Your task to perform on an android device: turn off picture-in-picture Image 0: 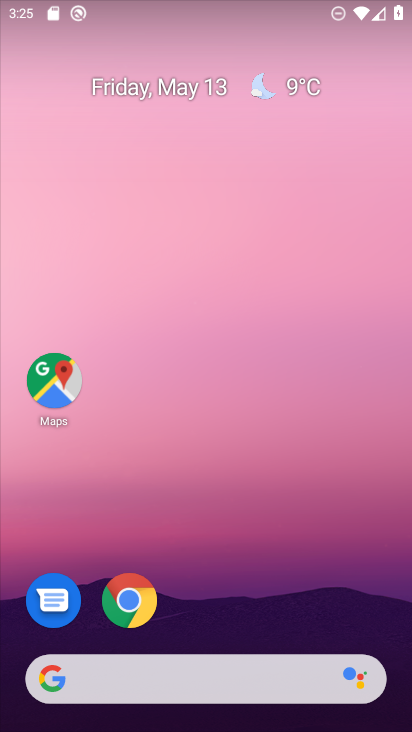
Step 0: click (223, 50)
Your task to perform on an android device: turn off picture-in-picture Image 1: 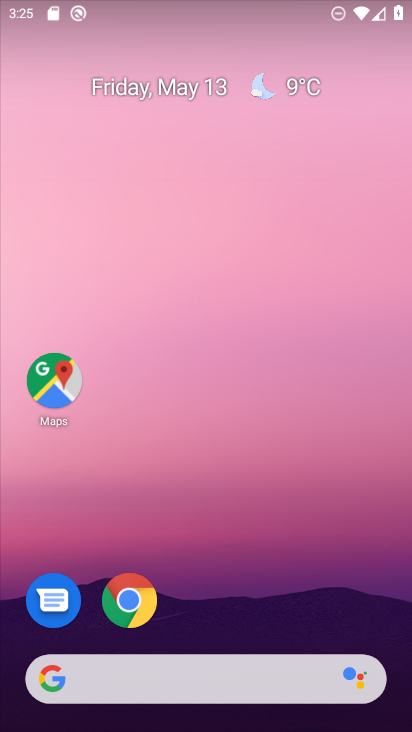
Step 1: drag from (196, 616) to (199, 118)
Your task to perform on an android device: turn off picture-in-picture Image 2: 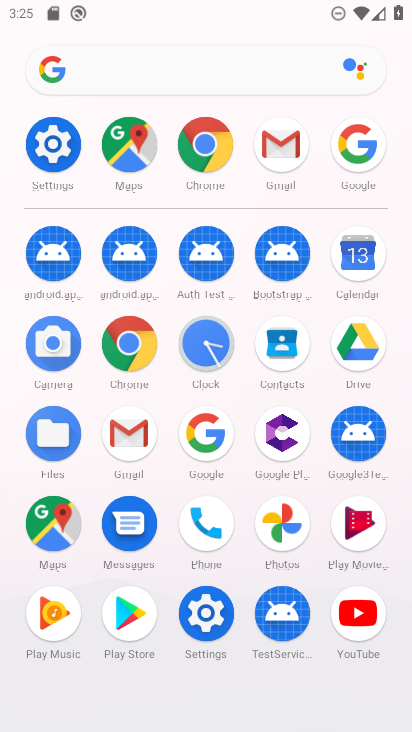
Step 2: click (191, 602)
Your task to perform on an android device: turn off picture-in-picture Image 3: 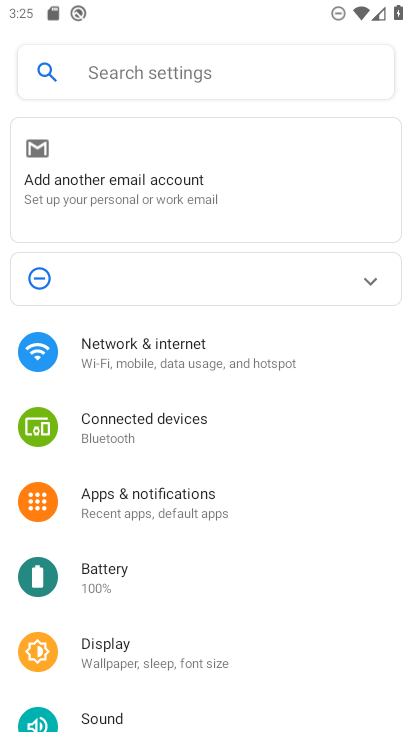
Step 3: drag from (224, 616) to (252, 103)
Your task to perform on an android device: turn off picture-in-picture Image 4: 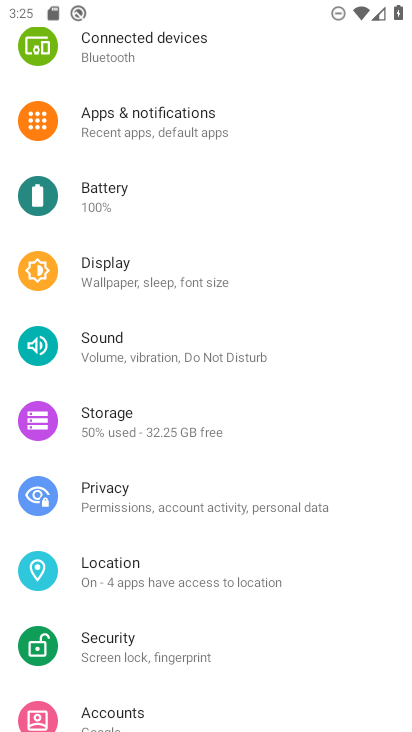
Step 4: click (209, 128)
Your task to perform on an android device: turn off picture-in-picture Image 5: 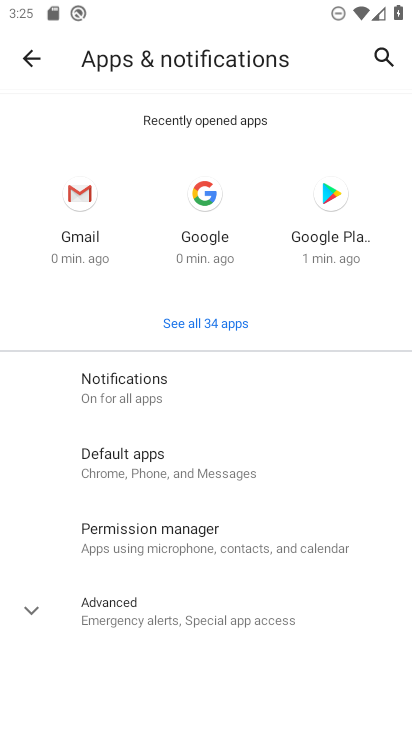
Step 5: click (167, 609)
Your task to perform on an android device: turn off picture-in-picture Image 6: 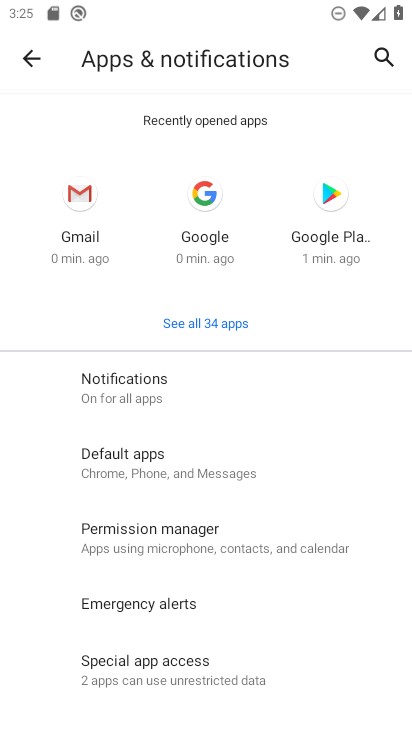
Step 6: drag from (200, 605) to (261, 157)
Your task to perform on an android device: turn off picture-in-picture Image 7: 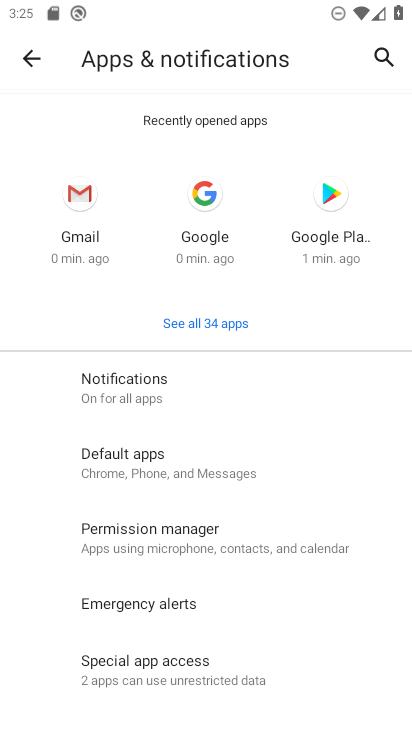
Step 7: click (148, 670)
Your task to perform on an android device: turn off picture-in-picture Image 8: 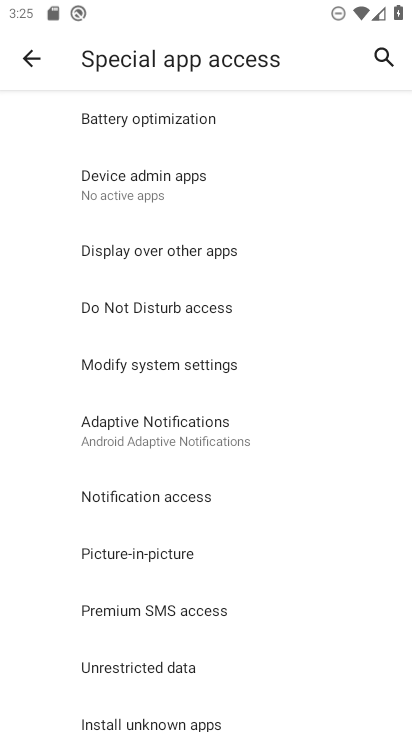
Step 8: click (179, 557)
Your task to perform on an android device: turn off picture-in-picture Image 9: 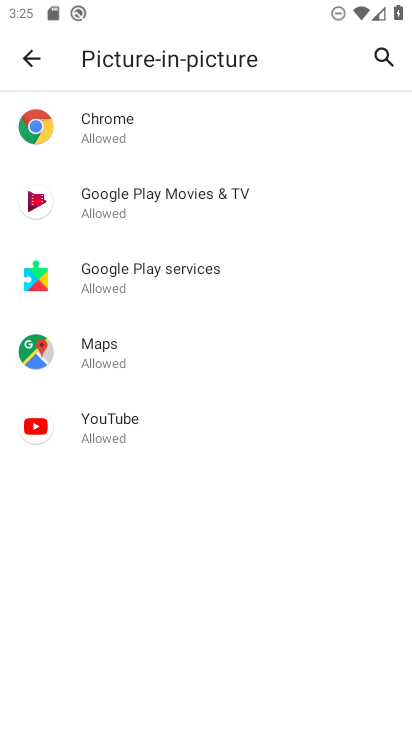
Step 9: click (202, 202)
Your task to perform on an android device: turn off picture-in-picture Image 10: 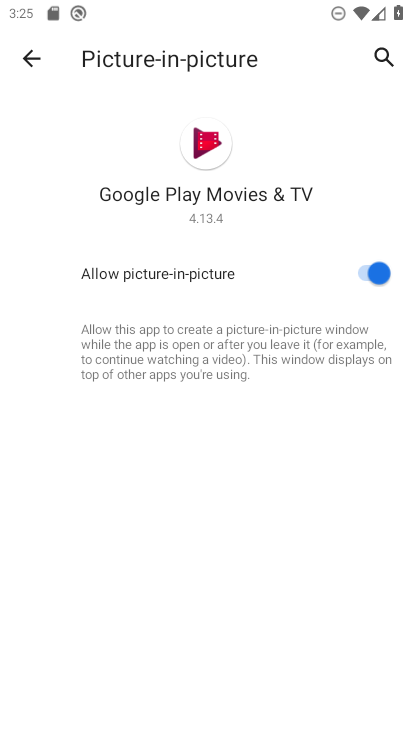
Step 10: click (371, 274)
Your task to perform on an android device: turn off picture-in-picture Image 11: 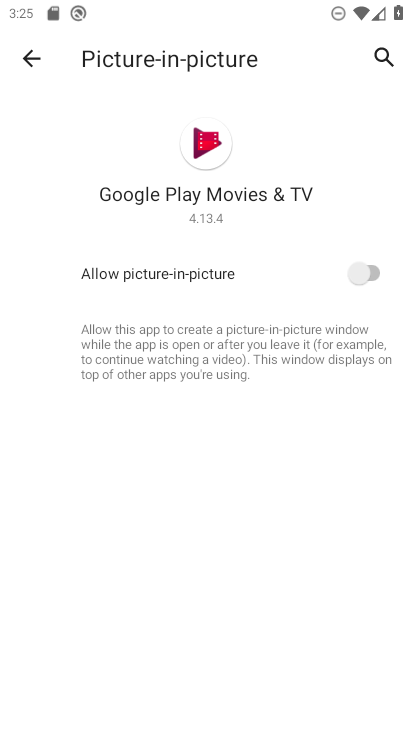
Step 11: task complete